Your task to perform on an android device: uninstall "Google Chrome" Image 0: 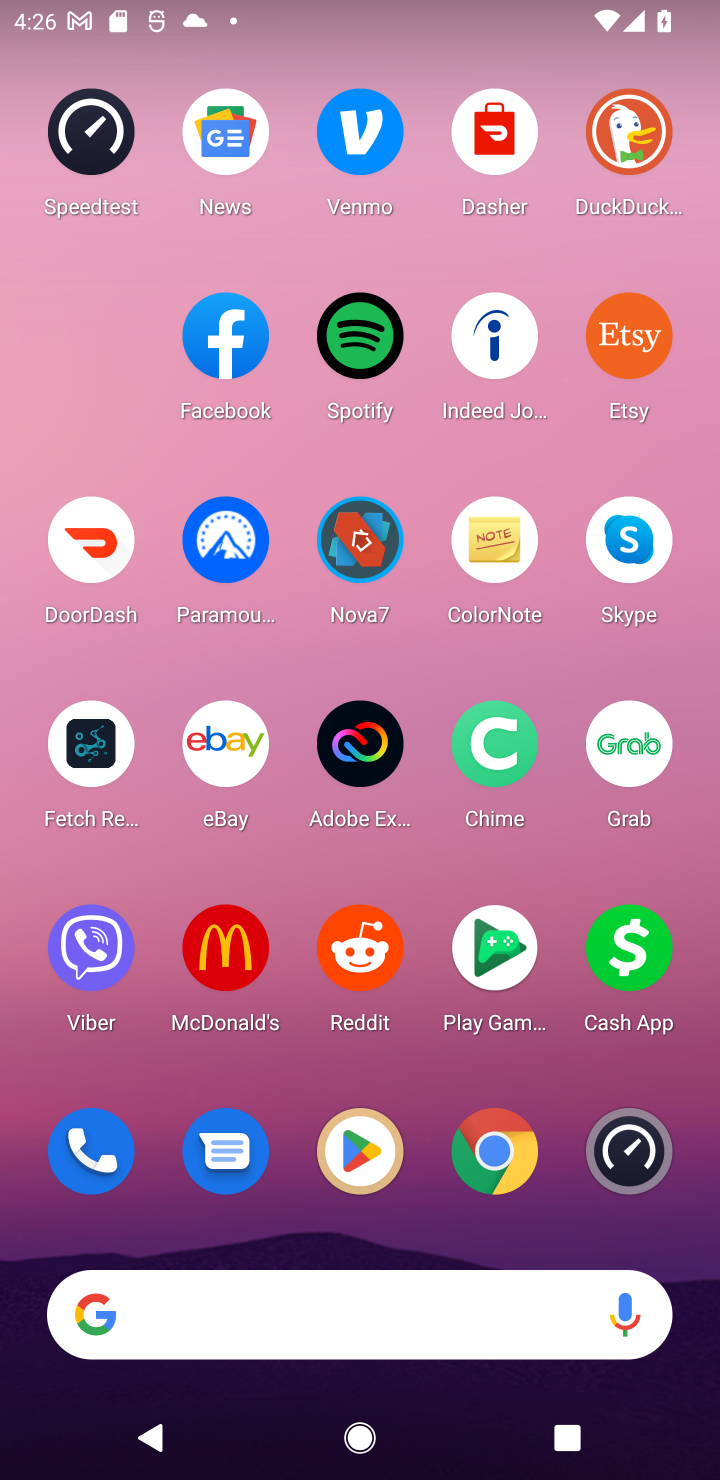
Step 0: press home button
Your task to perform on an android device: uninstall "Google Chrome" Image 1: 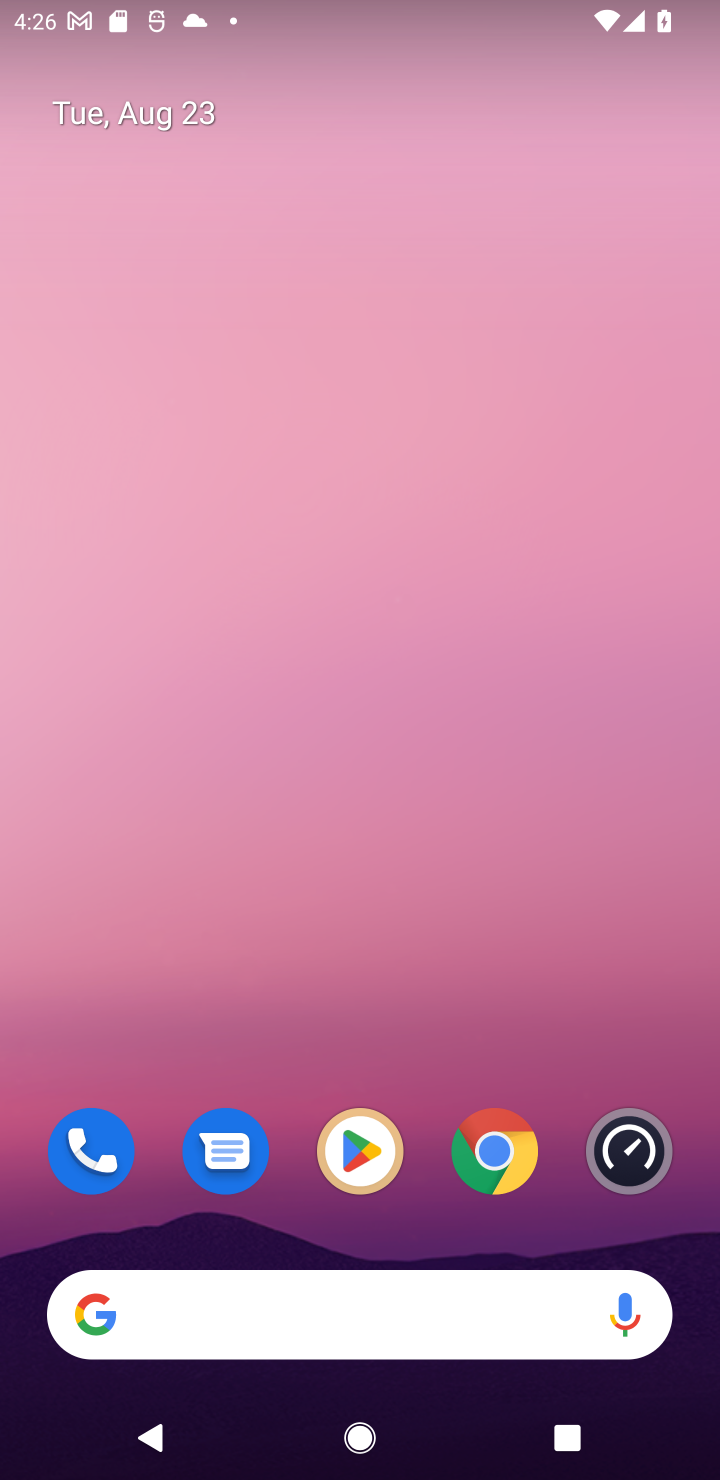
Step 1: click (349, 1151)
Your task to perform on an android device: uninstall "Google Chrome" Image 2: 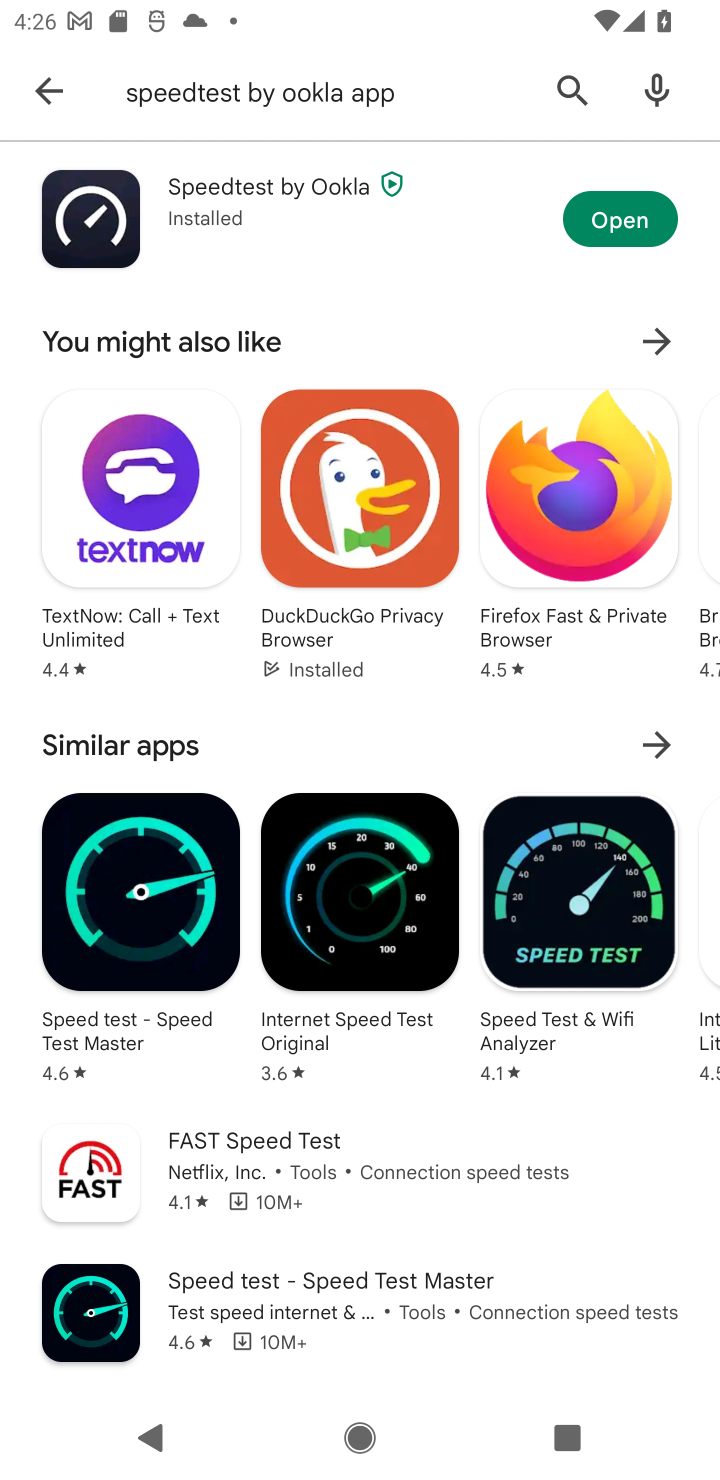
Step 2: click (569, 88)
Your task to perform on an android device: uninstall "Google Chrome" Image 3: 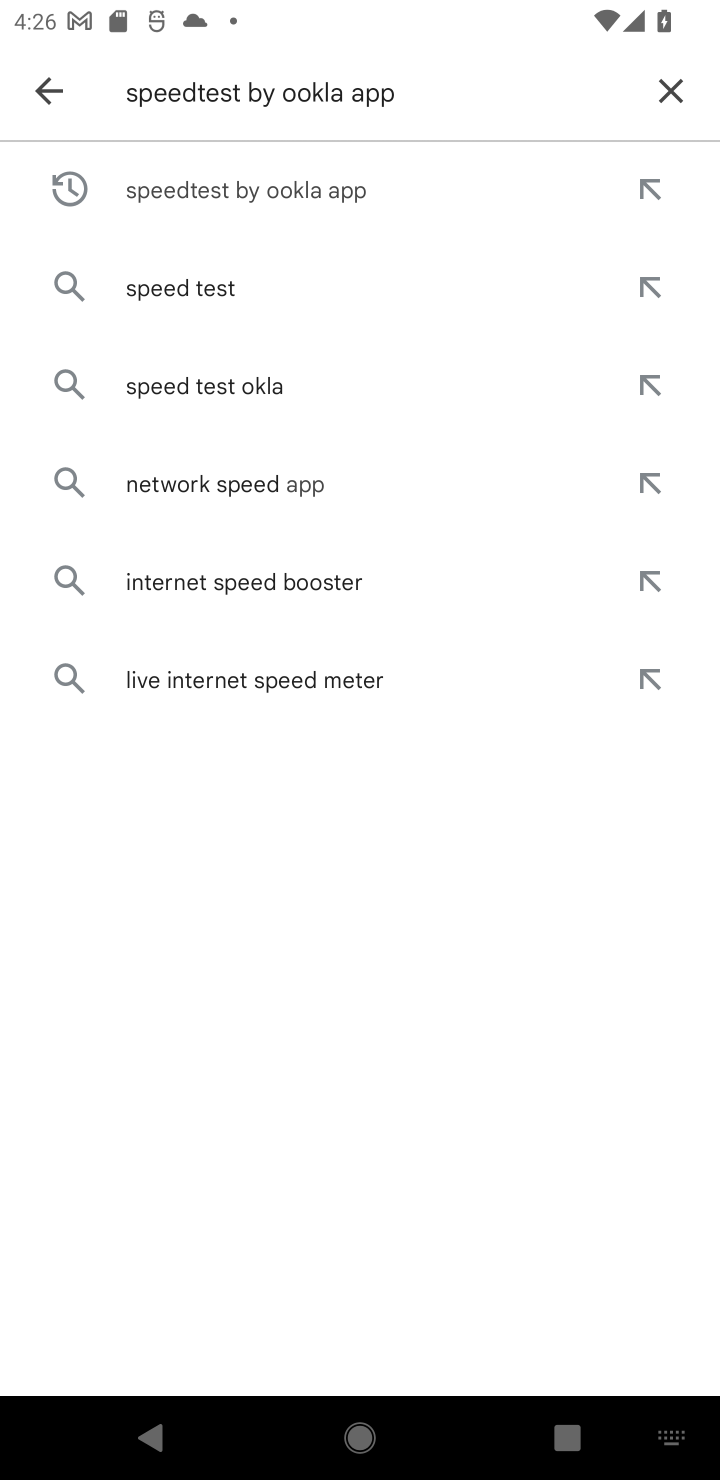
Step 3: click (680, 80)
Your task to perform on an android device: uninstall "Google Chrome" Image 4: 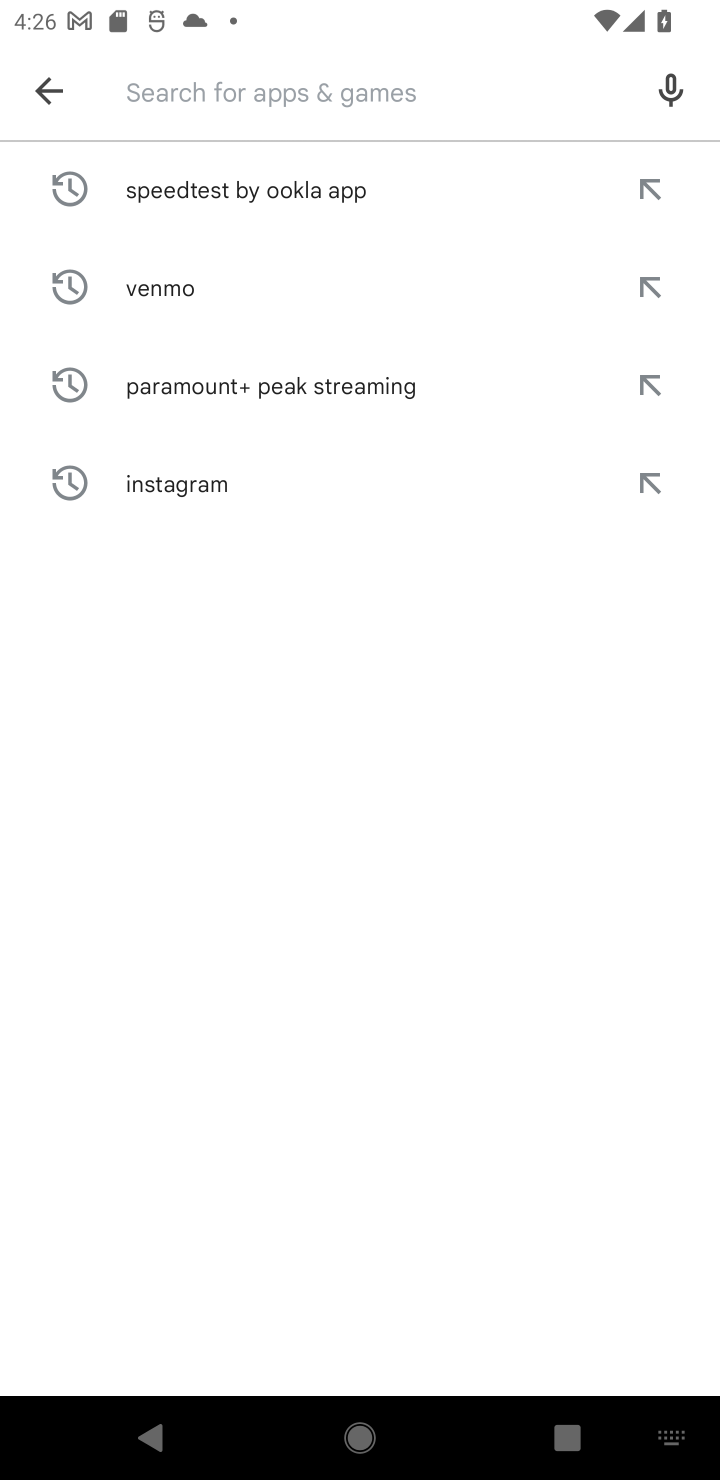
Step 4: type "Google Chrome"
Your task to perform on an android device: uninstall "Google Chrome" Image 5: 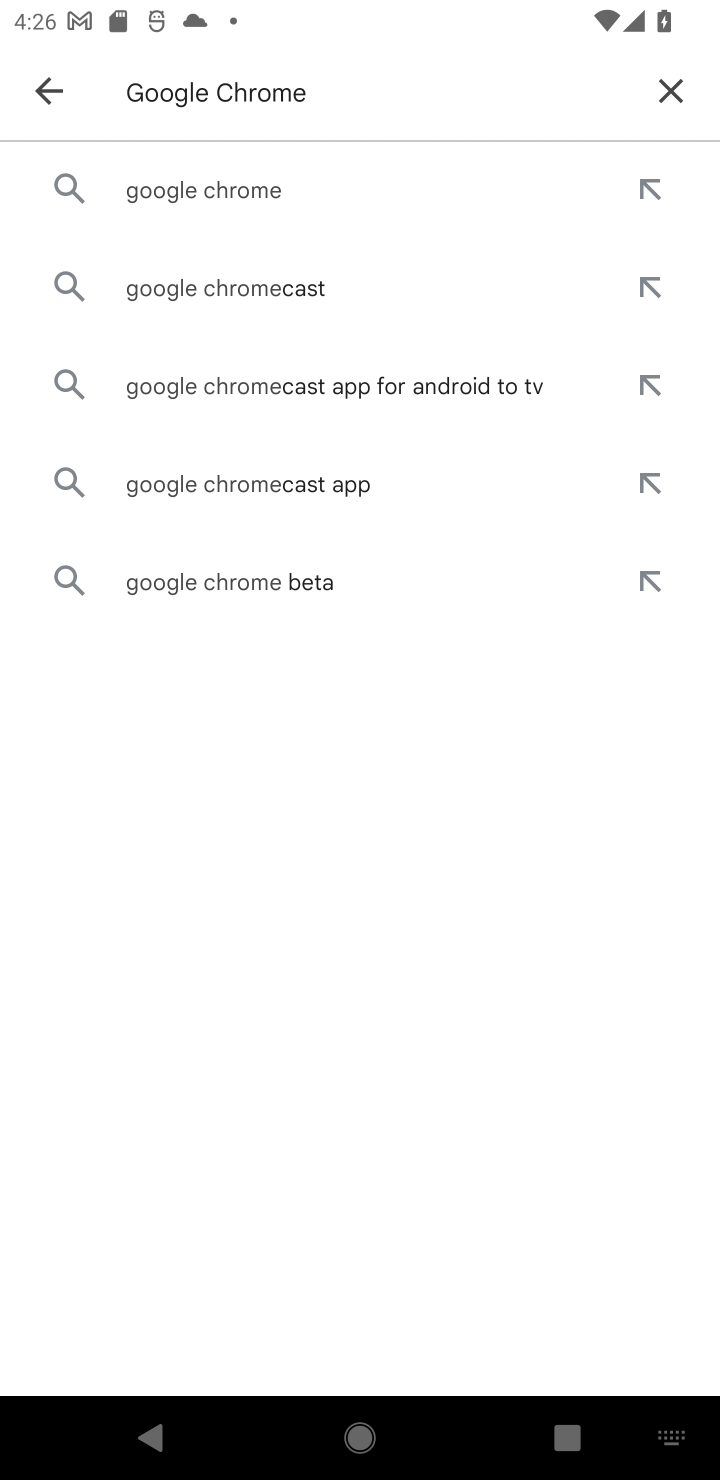
Step 5: click (227, 189)
Your task to perform on an android device: uninstall "Google Chrome" Image 6: 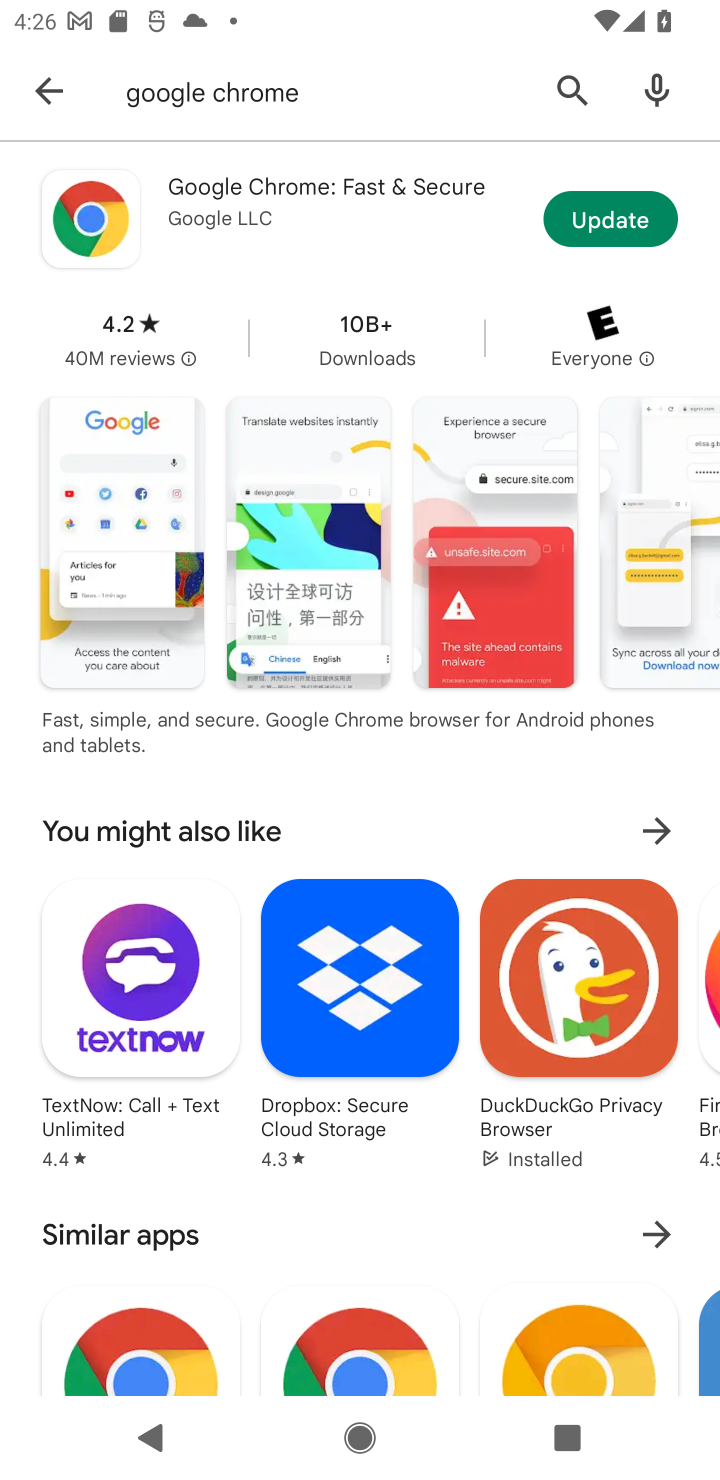
Step 6: click (123, 201)
Your task to perform on an android device: uninstall "Google Chrome" Image 7: 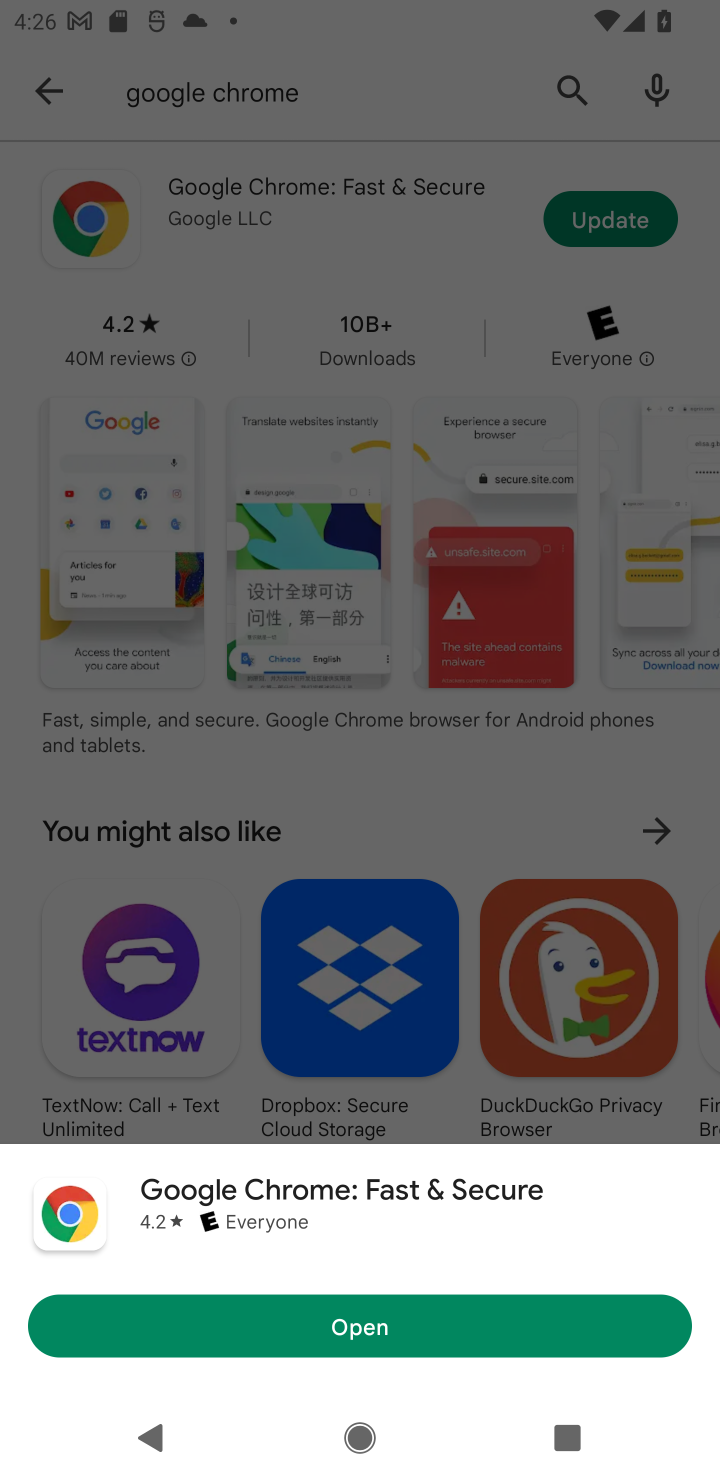
Step 7: click (216, 186)
Your task to perform on an android device: uninstall "Google Chrome" Image 8: 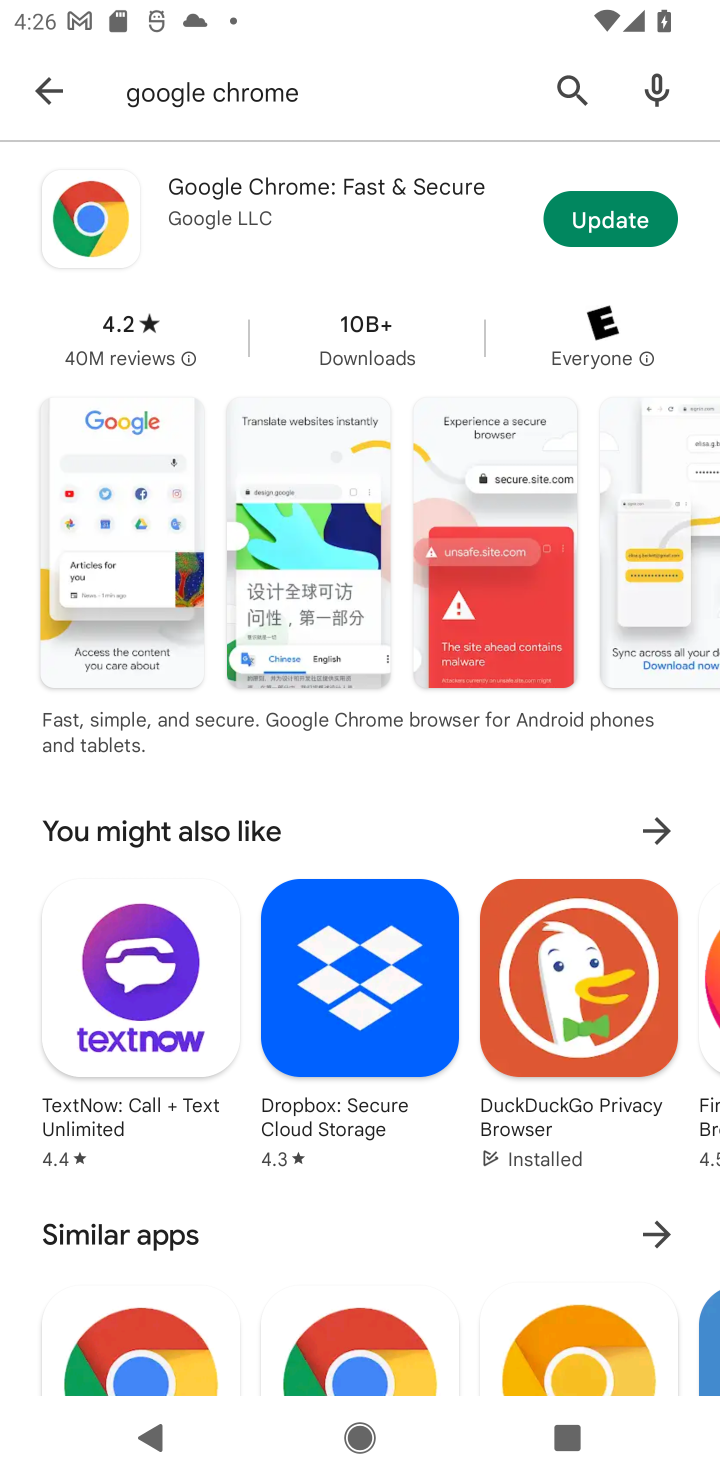
Step 8: click (108, 195)
Your task to perform on an android device: uninstall "Google Chrome" Image 9: 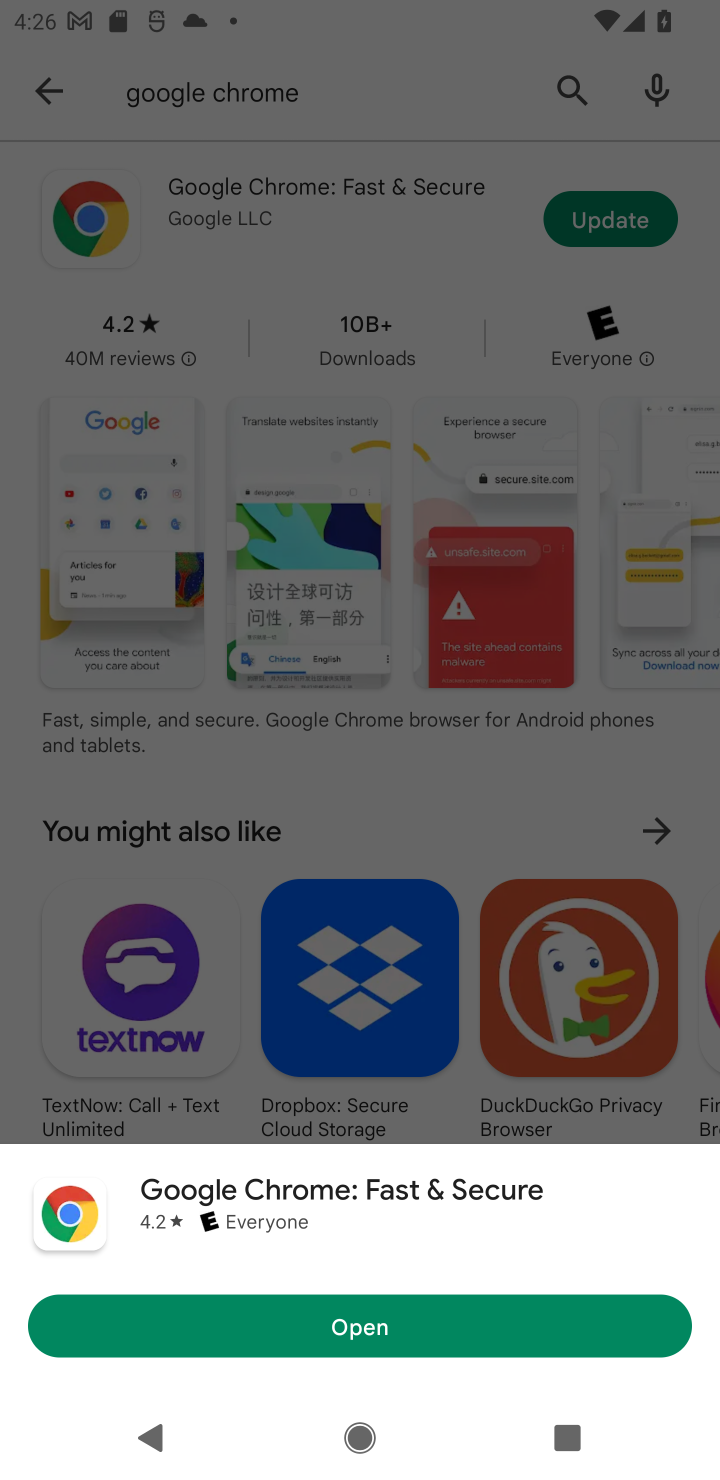
Step 9: click (83, 1201)
Your task to perform on an android device: uninstall "Google Chrome" Image 10: 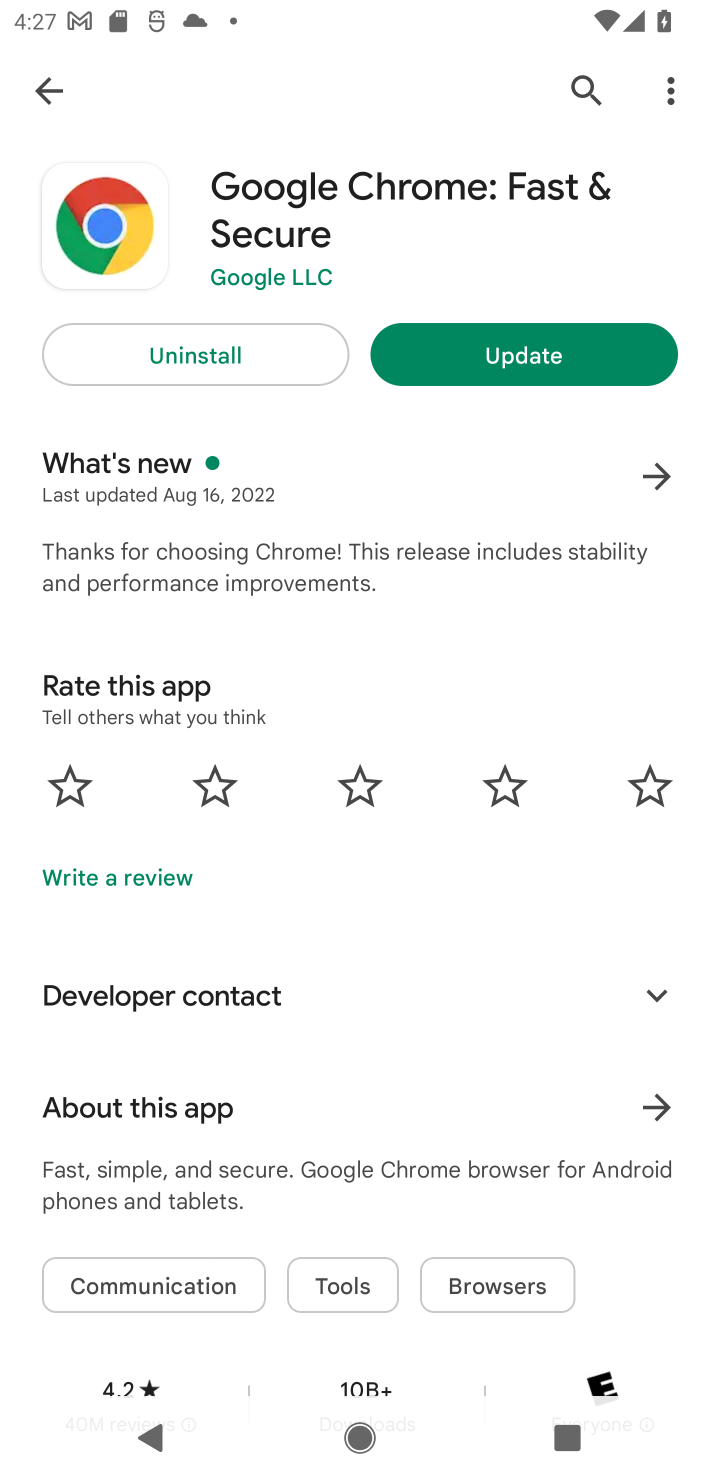
Step 10: click (235, 350)
Your task to perform on an android device: uninstall "Google Chrome" Image 11: 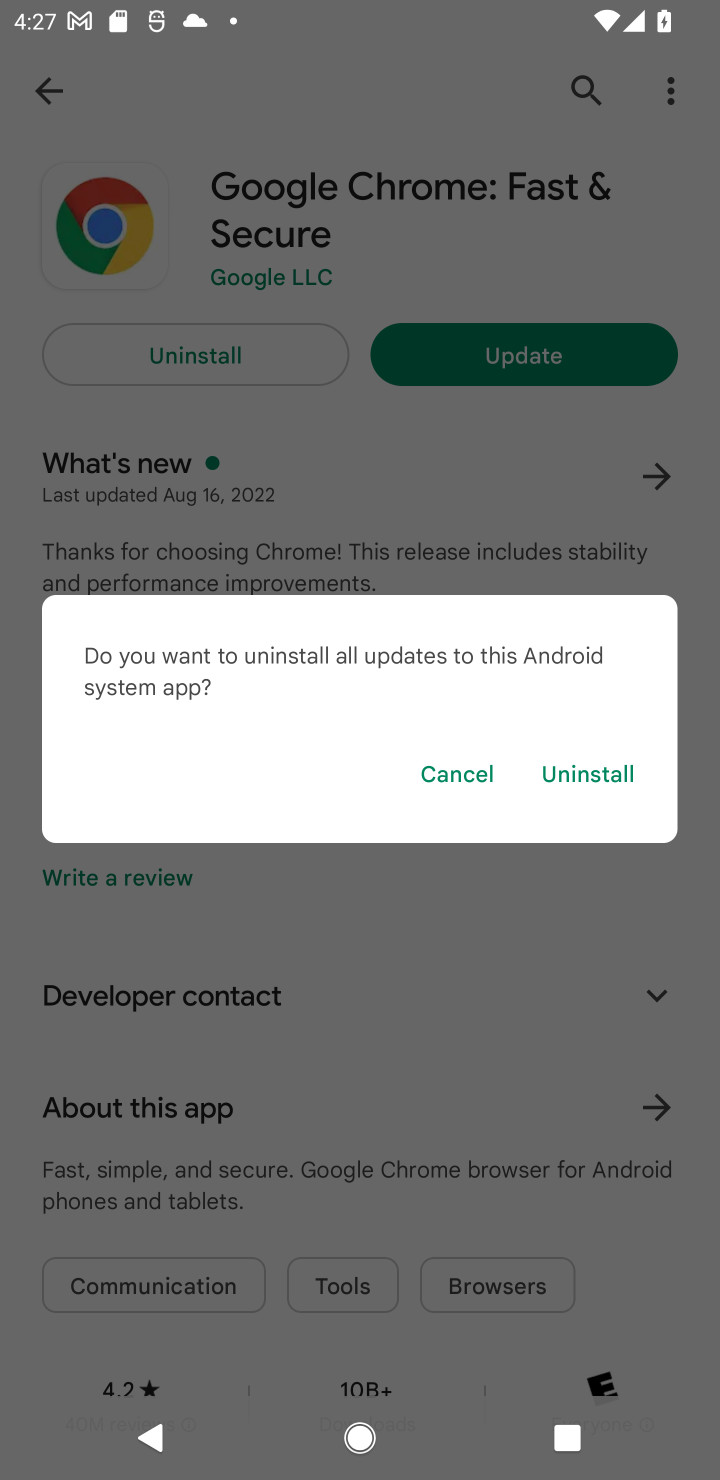
Step 11: click (575, 766)
Your task to perform on an android device: uninstall "Google Chrome" Image 12: 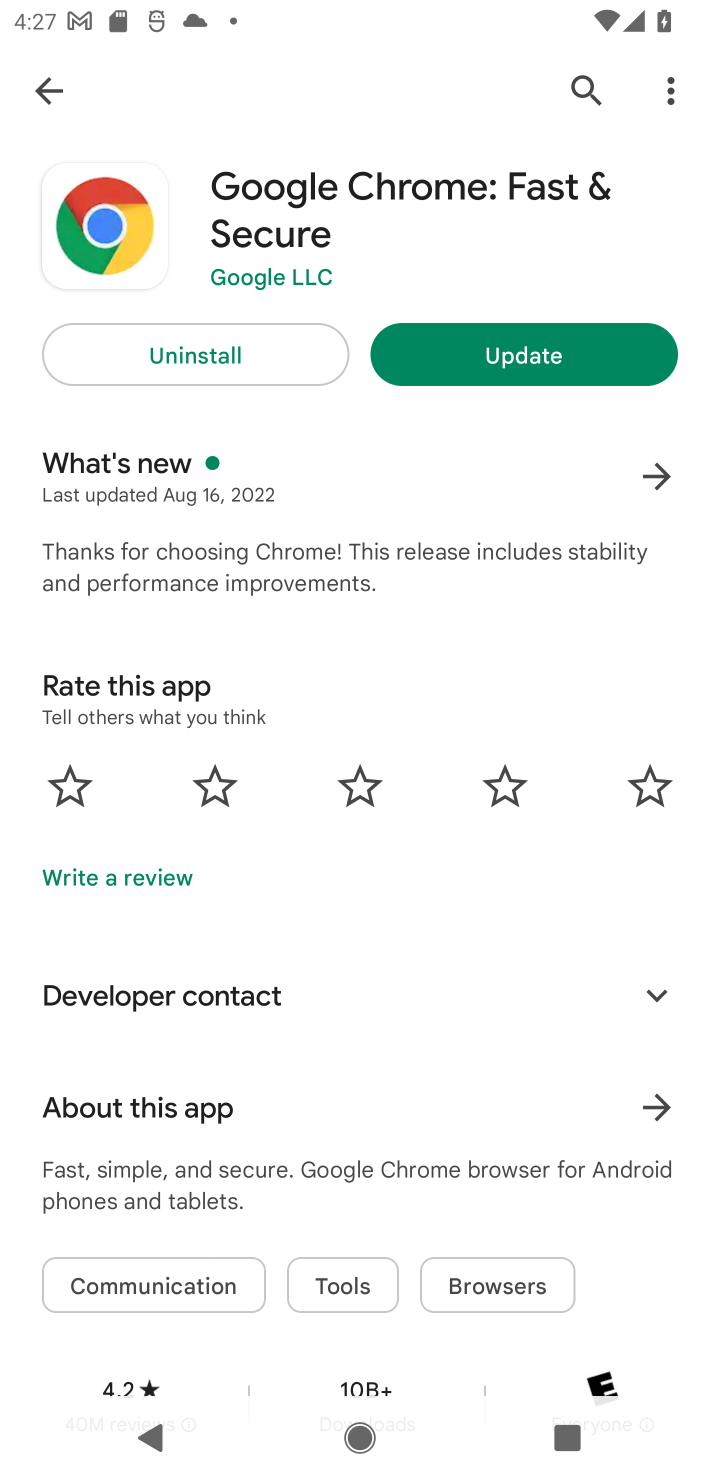
Step 12: task complete